Your task to perform on an android device: Open the Play Movies app and select the watchlist tab. Image 0: 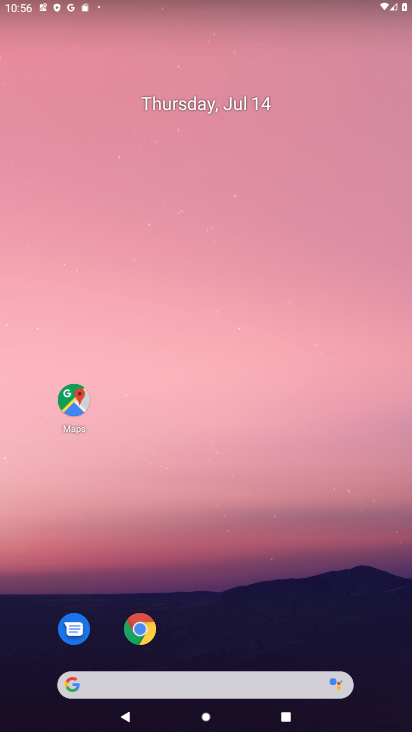
Step 0: task complete